Your task to perform on an android device: install app "Nova Launcher" Image 0: 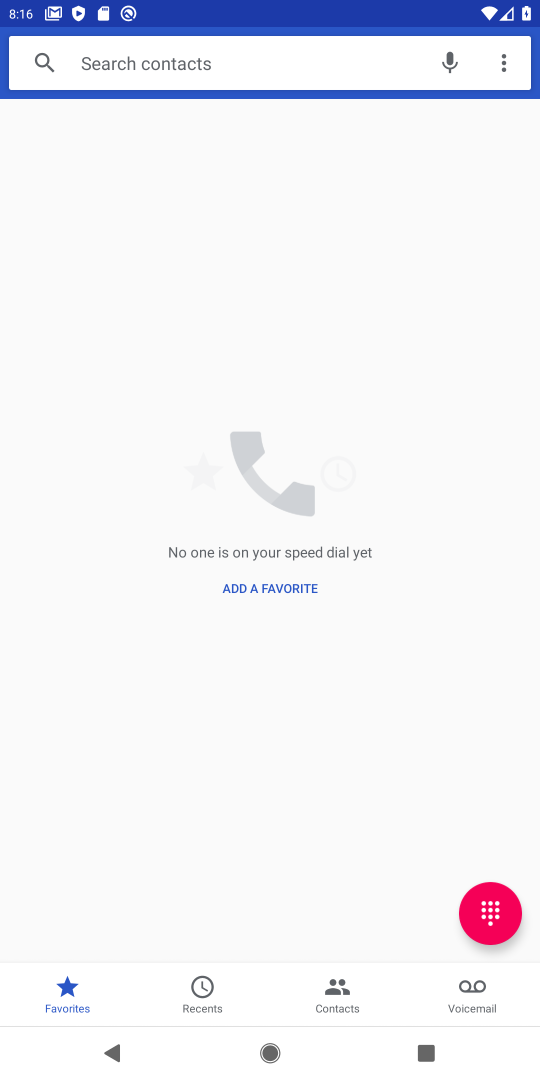
Step 0: press home button
Your task to perform on an android device: install app "Nova Launcher" Image 1: 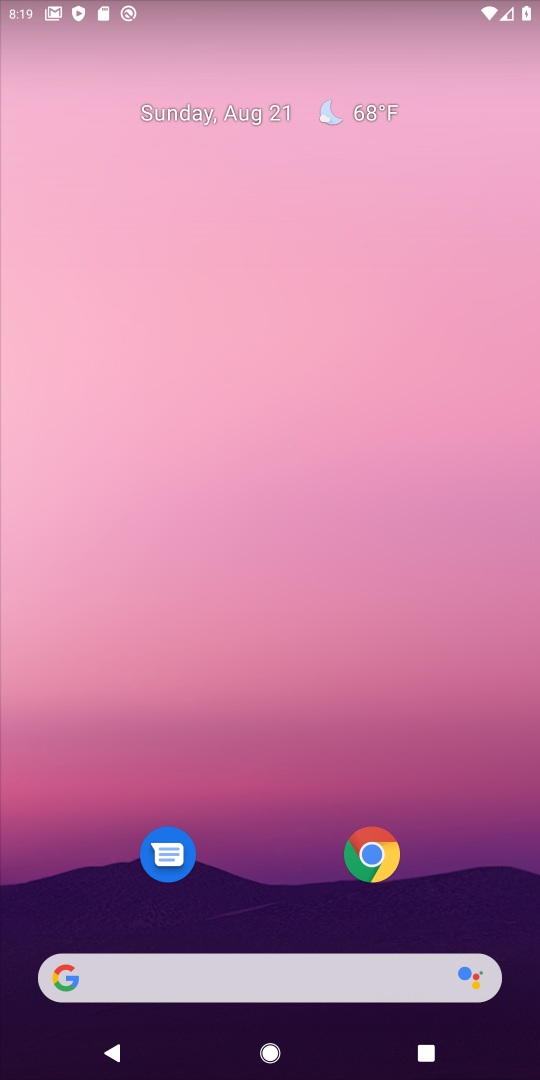
Step 1: drag from (253, 934) to (259, 118)
Your task to perform on an android device: install app "Nova Launcher" Image 2: 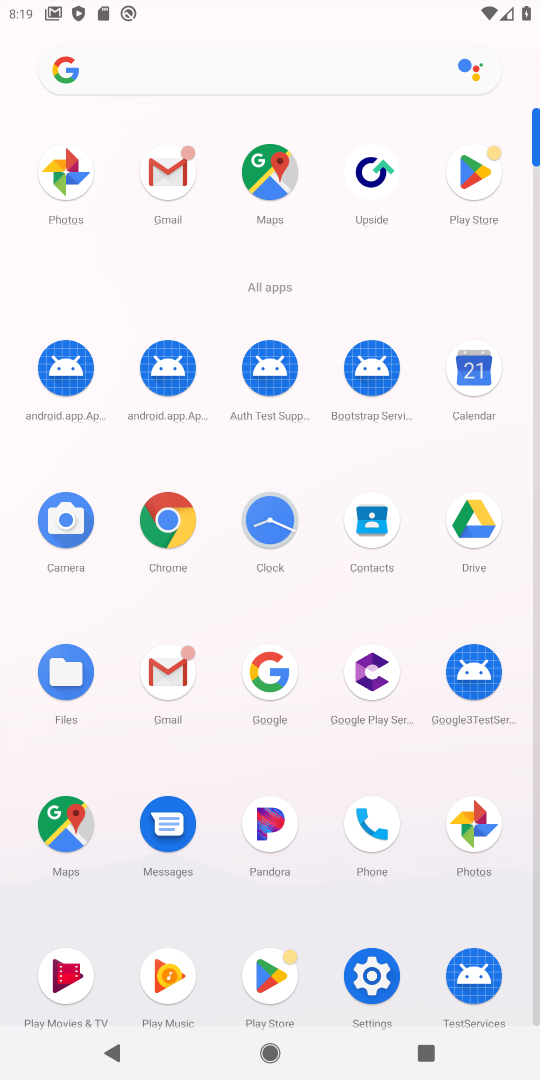
Step 2: click (479, 199)
Your task to perform on an android device: install app "Nova Launcher" Image 3: 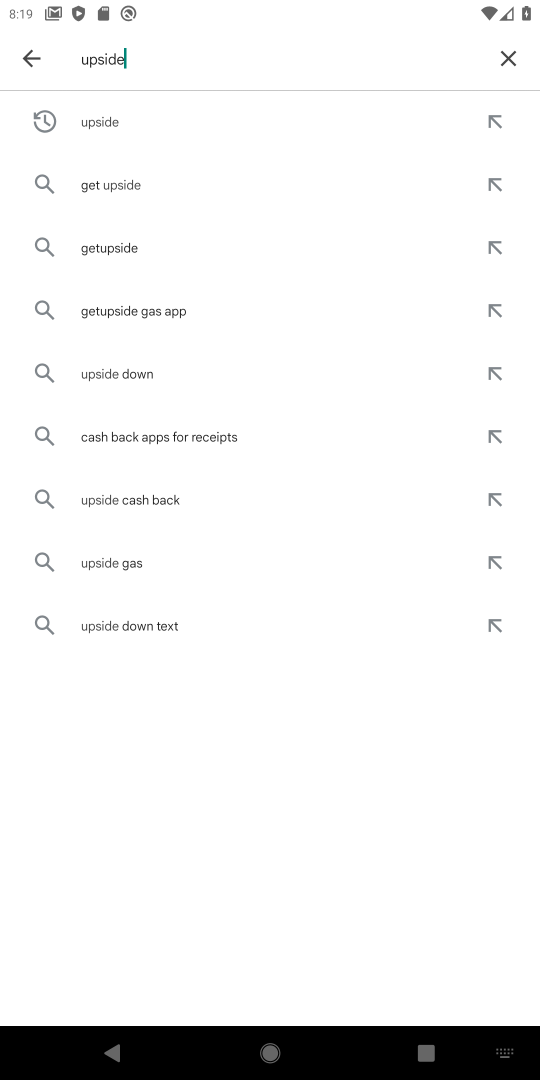
Step 3: click (509, 57)
Your task to perform on an android device: install app "Nova Launcher" Image 4: 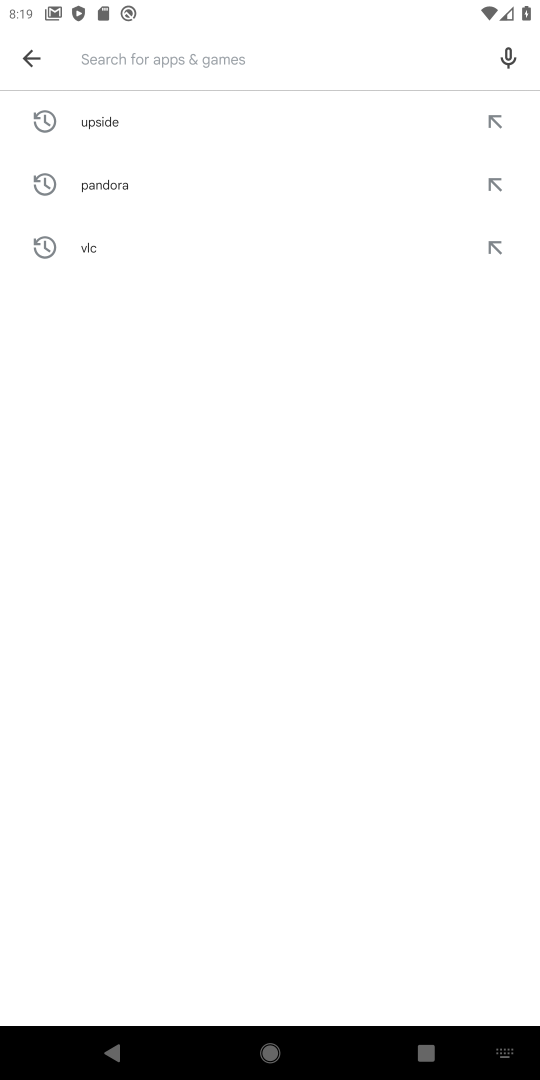
Step 4: type "nova"
Your task to perform on an android device: install app "Nova Launcher" Image 5: 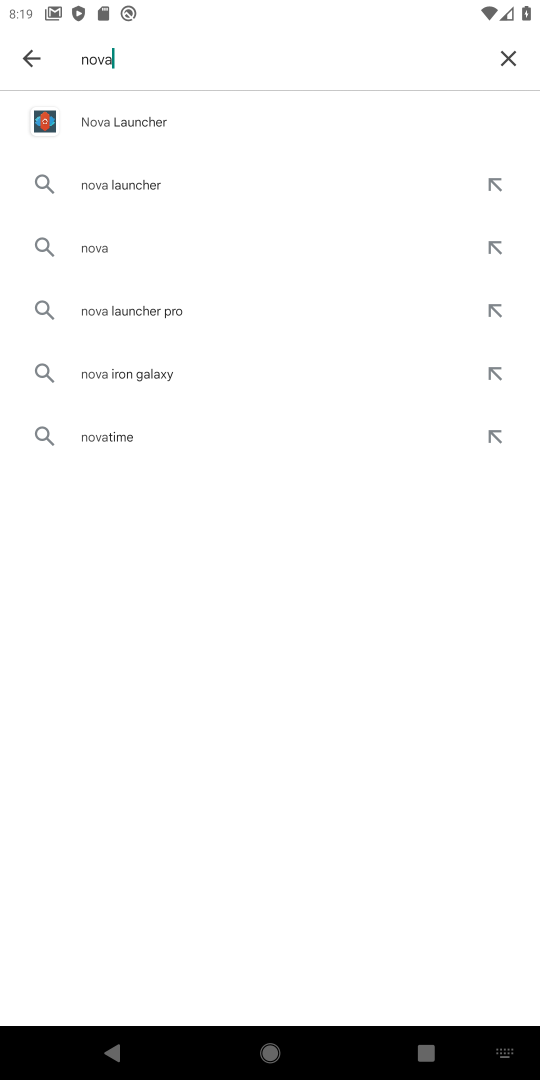
Step 5: click (137, 124)
Your task to perform on an android device: install app "Nova Launcher" Image 6: 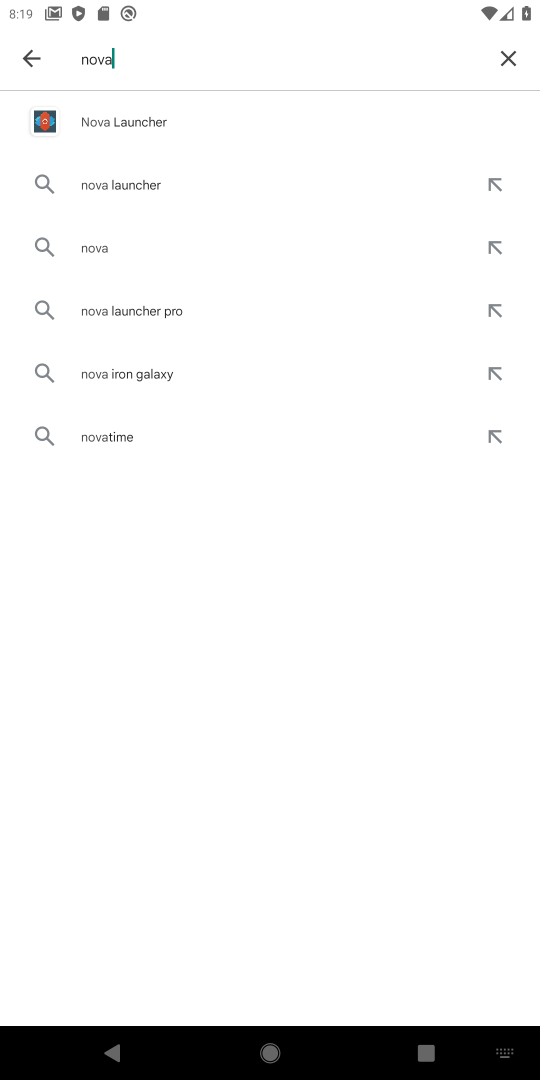
Step 6: click (137, 124)
Your task to perform on an android device: install app "Nova Launcher" Image 7: 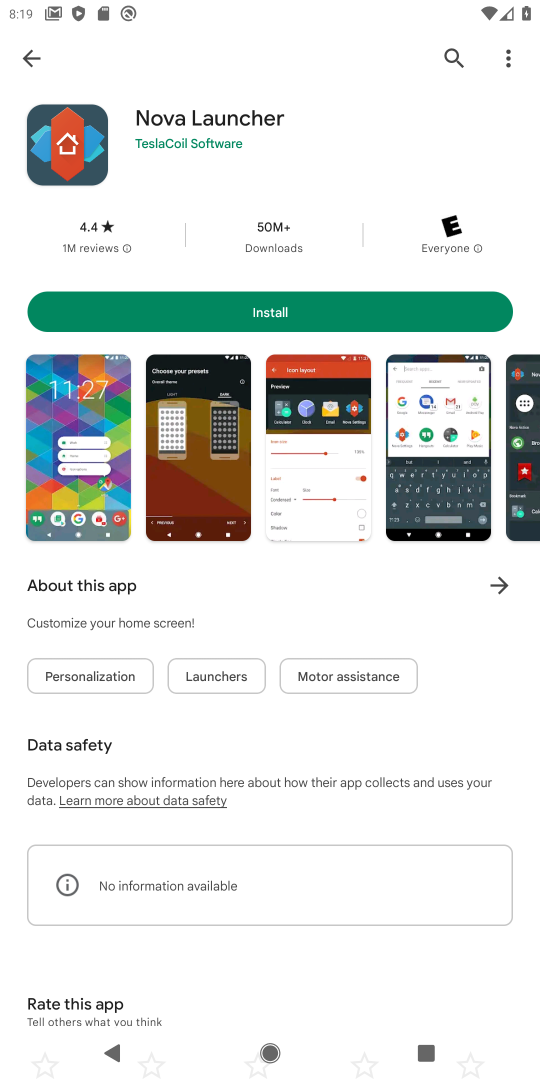
Step 7: click (96, 300)
Your task to perform on an android device: install app "Nova Launcher" Image 8: 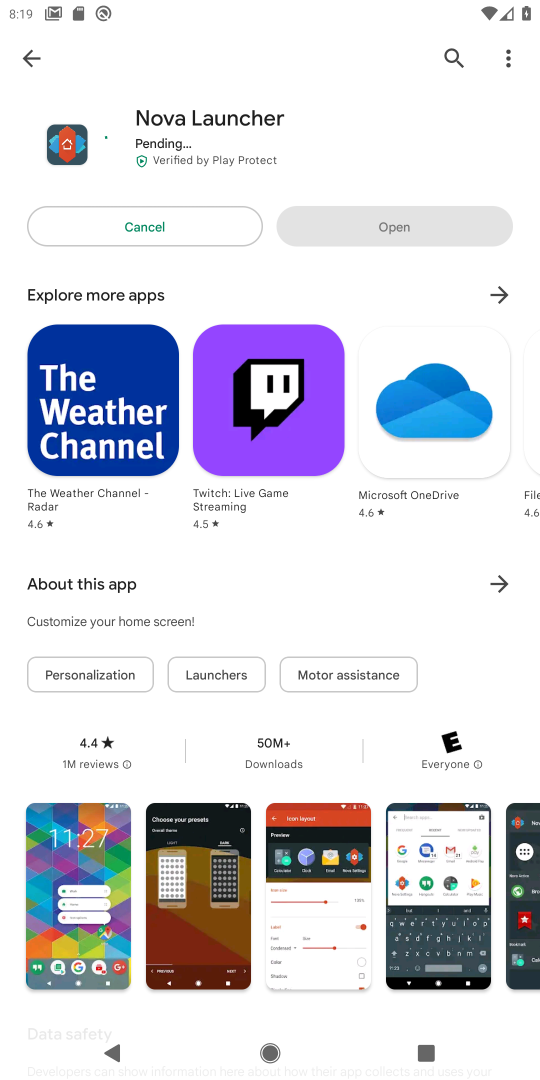
Step 8: task complete